Your task to perform on an android device: Show me productivity apps on the Play Store Image 0: 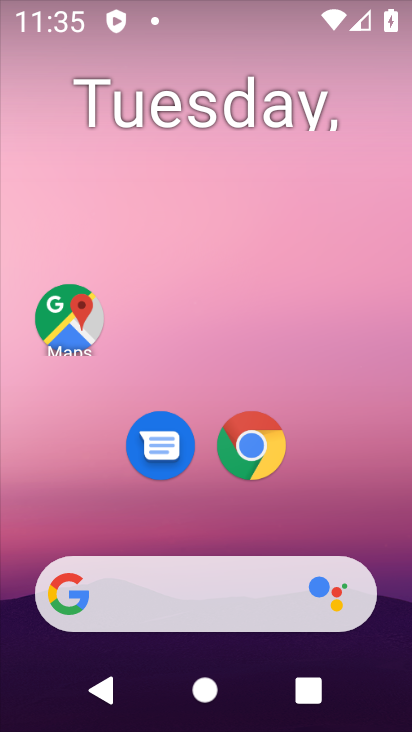
Step 0: drag from (396, 637) to (295, 61)
Your task to perform on an android device: Show me productivity apps on the Play Store Image 1: 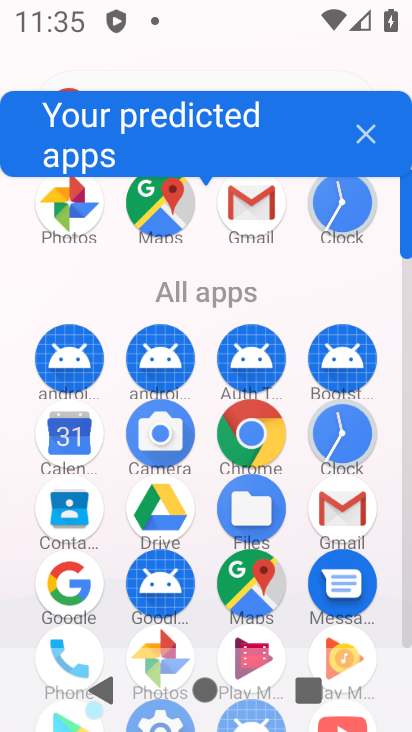
Step 1: drag from (201, 634) to (197, 163)
Your task to perform on an android device: Show me productivity apps on the Play Store Image 2: 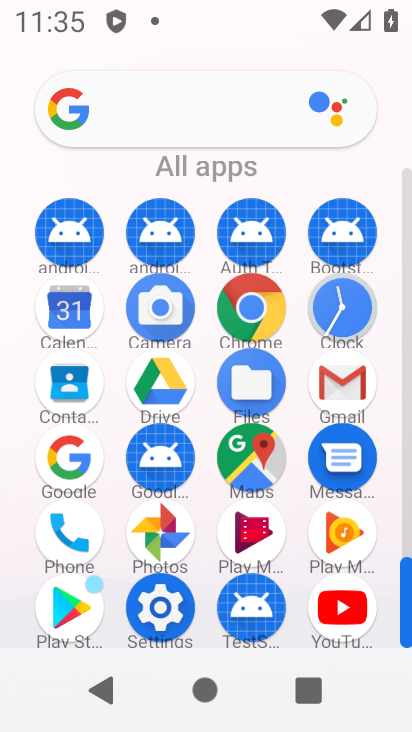
Step 2: click (85, 598)
Your task to perform on an android device: Show me productivity apps on the Play Store Image 3: 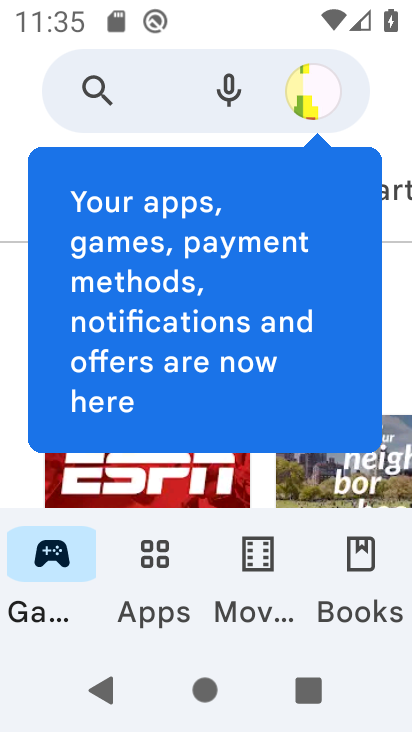
Step 3: task complete